Your task to perform on an android device: Open calendar and show me the first week of next month Image 0: 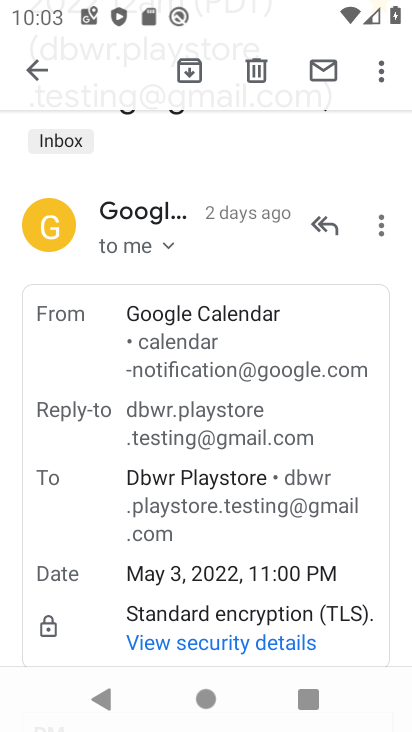
Step 0: press home button
Your task to perform on an android device: Open calendar and show me the first week of next month Image 1: 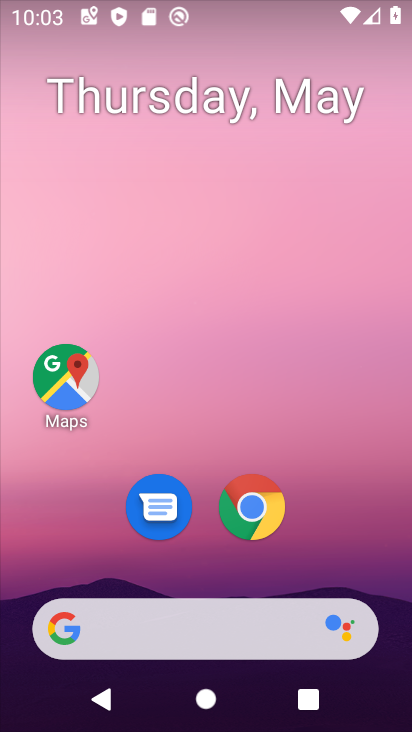
Step 1: drag from (267, 650) to (280, 2)
Your task to perform on an android device: Open calendar and show me the first week of next month Image 2: 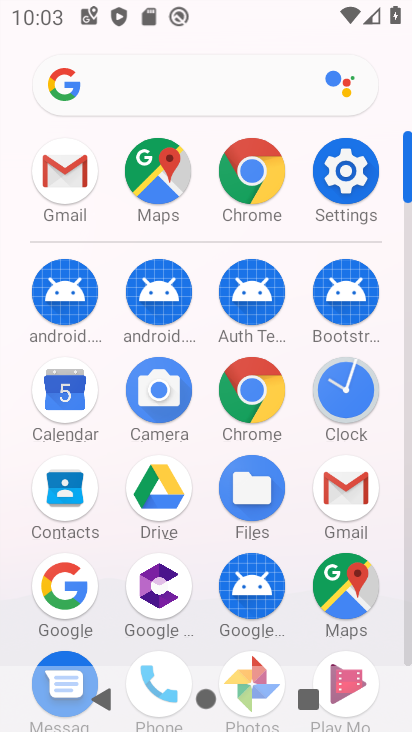
Step 2: drag from (202, 525) to (246, 131)
Your task to perform on an android device: Open calendar and show me the first week of next month Image 3: 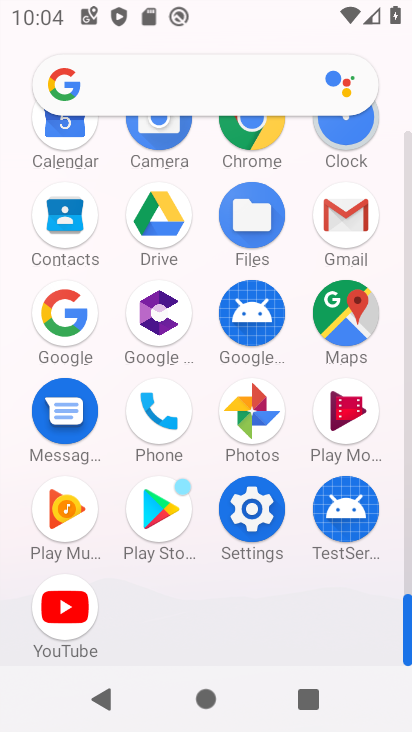
Step 3: click (67, 144)
Your task to perform on an android device: Open calendar and show me the first week of next month Image 4: 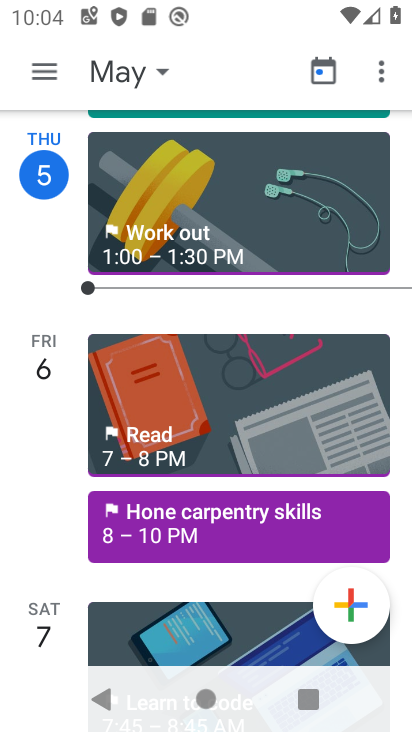
Step 4: click (158, 81)
Your task to perform on an android device: Open calendar and show me the first week of next month Image 5: 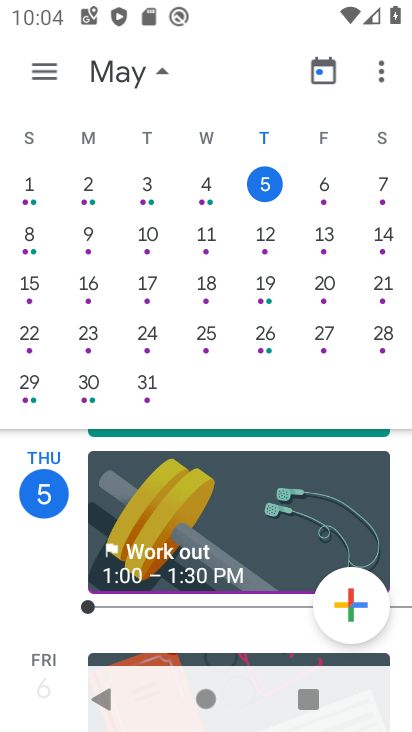
Step 5: drag from (333, 304) to (32, 267)
Your task to perform on an android device: Open calendar and show me the first week of next month Image 6: 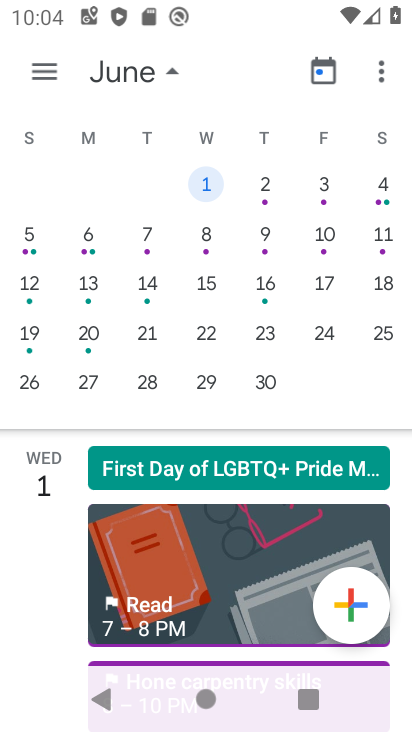
Step 6: click (205, 188)
Your task to perform on an android device: Open calendar and show me the first week of next month Image 7: 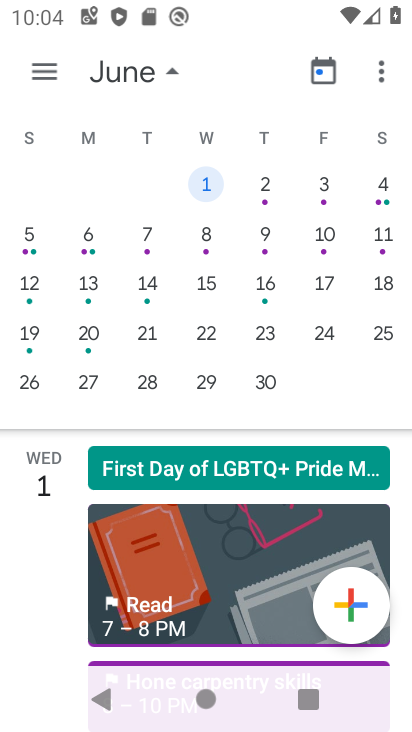
Step 7: task complete